Your task to perform on an android device: turn pop-ups off in chrome Image 0: 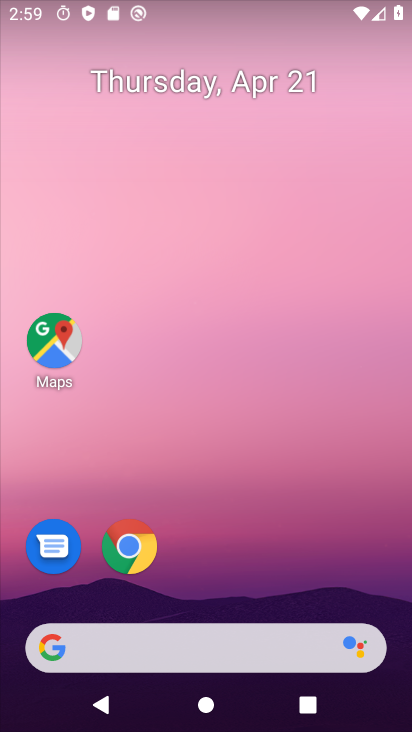
Step 0: drag from (283, 692) to (353, 304)
Your task to perform on an android device: turn pop-ups off in chrome Image 1: 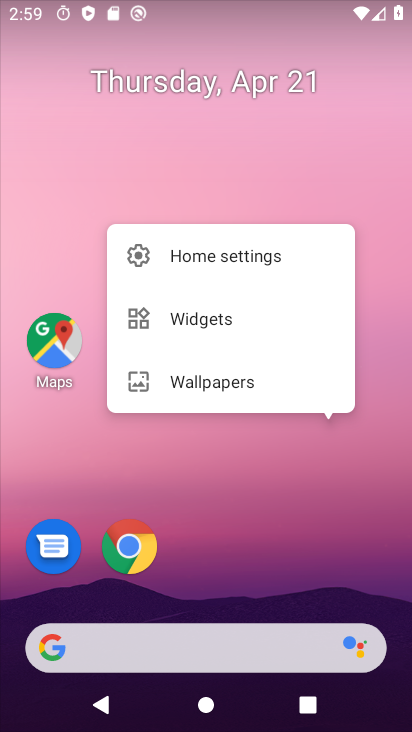
Step 1: drag from (282, 567) to (319, 24)
Your task to perform on an android device: turn pop-ups off in chrome Image 2: 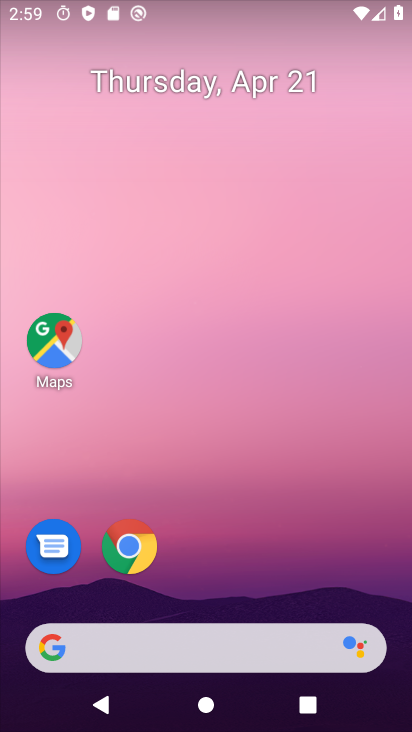
Step 2: drag from (277, 666) to (264, 7)
Your task to perform on an android device: turn pop-ups off in chrome Image 3: 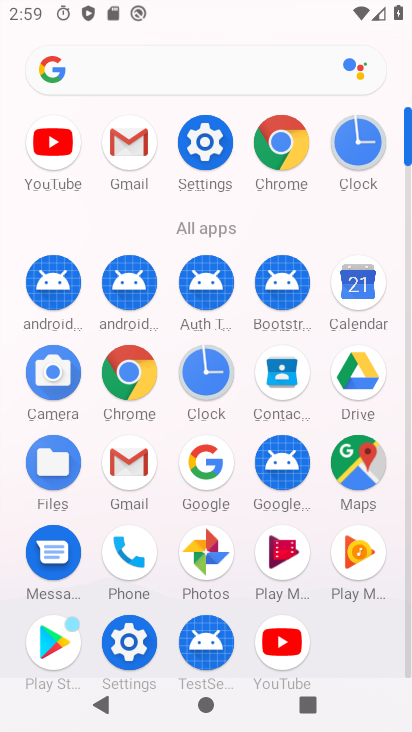
Step 3: click (122, 374)
Your task to perform on an android device: turn pop-ups off in chrome Image 4: 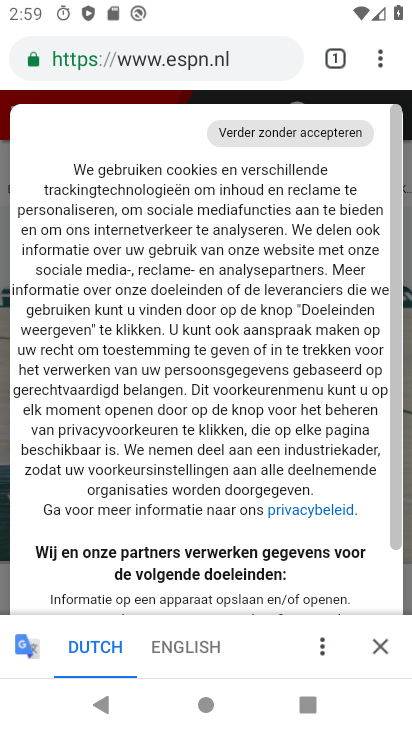
Step 4: click (378, 63)
Your task to perform on an android device: turn pop-ups off in chrome Image 5: 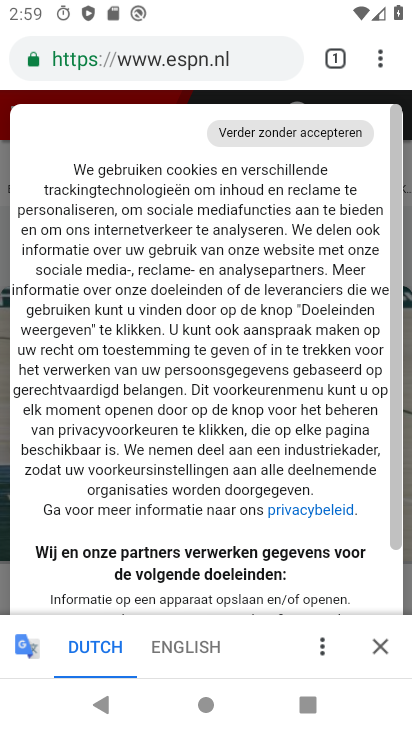
Step 5: drag from (381, 59) to (248, 585)
Your task to perform on an android device: turn pop-ups off in chrome Image 6: 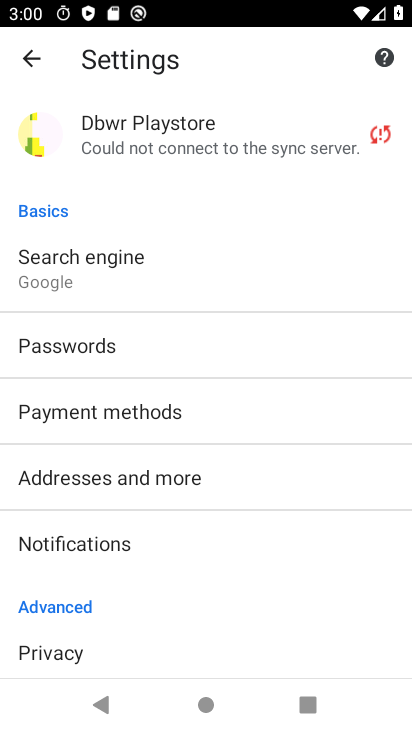
Step 6: drag from (161, 599) to (192, 307)
Your task to perform on an android device: turn pop-ups off in chrome Image 7: 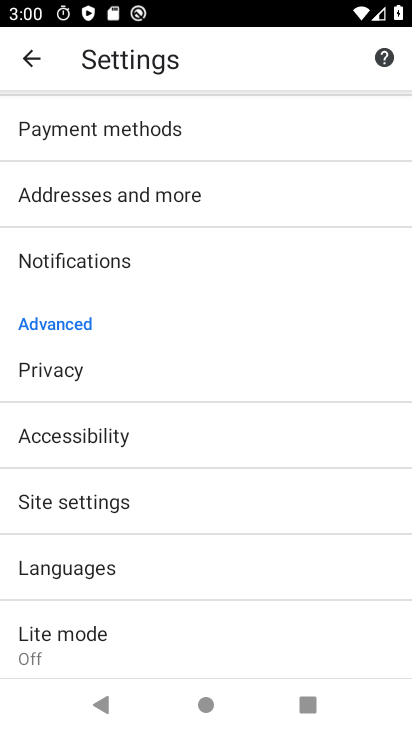
Step 7: click (177, 498)
Your task to perform on an android device: turn pop-ups off in chrome Image 8: 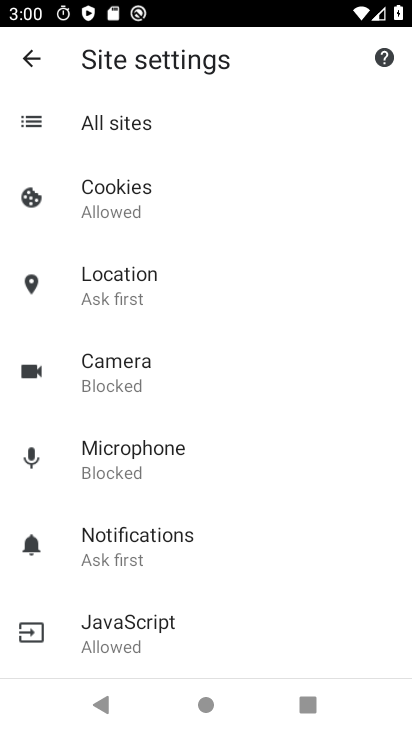
Step 8: drag from (248, 611) to (251, 412)
Your task to perform on an android device: turn pop-ups off in chrome Image 9: 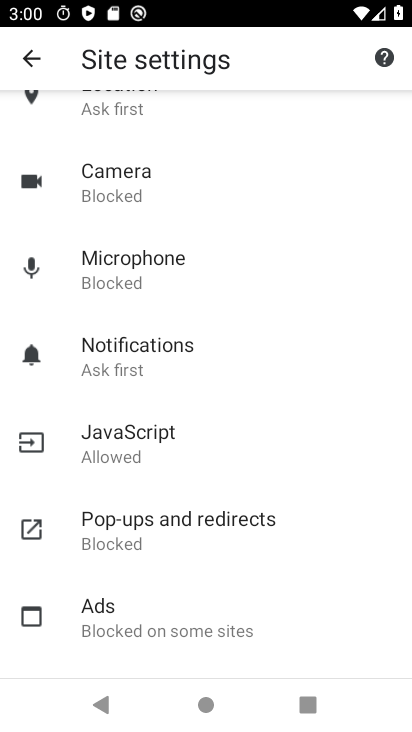
Step 9: drag from (281, 558) to (280, 386)
Your task to perform on an android device: turn pop-ups off in chrome Image 10: 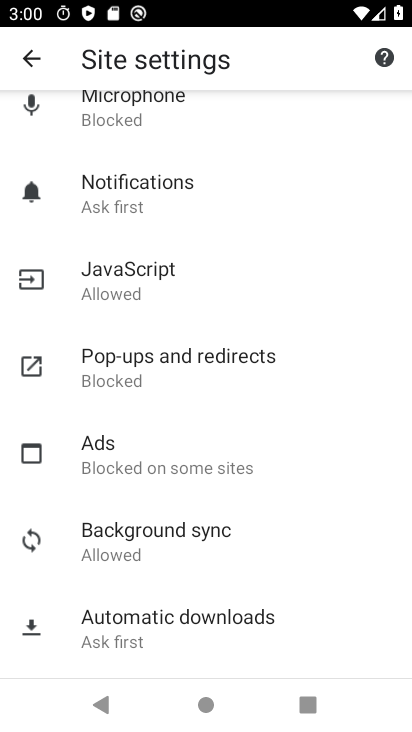
Step 10: drag from (250, 602) to (250, 388)
Your task to perform on an android device: turn pop-ups off in chrome Image 11: 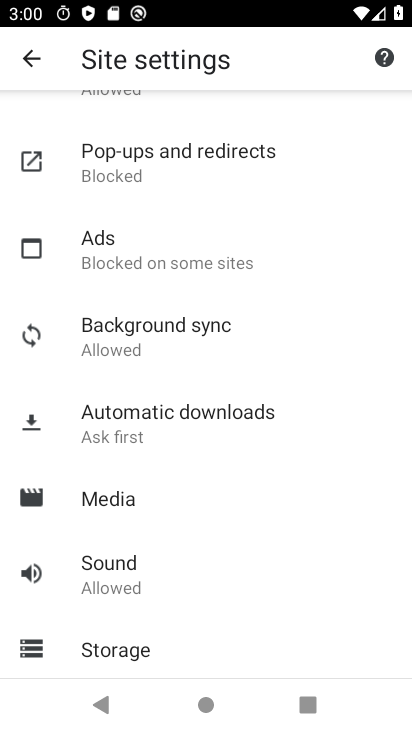
Step 11: drag from (188, 633) to (189, 464)
Your task to perform on an android device: turn pop-ups off in chrome Image 12: 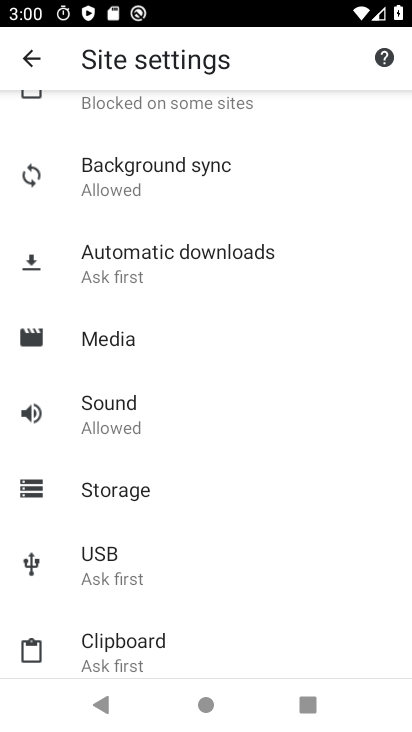
Step 12: drag from (204, 591) to (201, 409)
Your task to perform on an android device: turn pop-ups off in chrome Image 13: 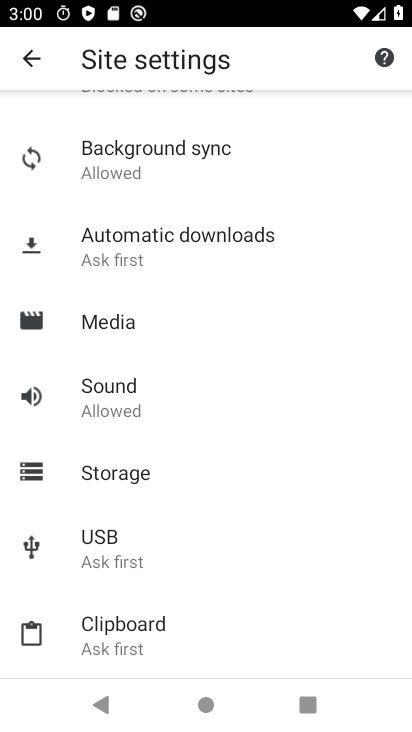
Step 13: drag from (269, 164) to (265, 547)
Your task to perform on an android device: turn pop-ups off in chrome Image 14: 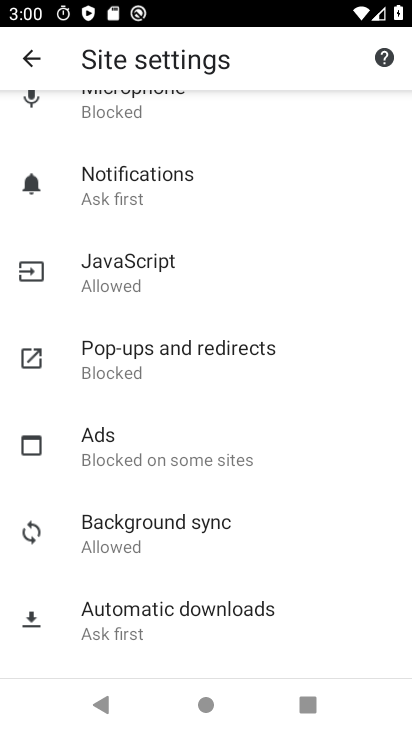
Step 14: click (186, 363)
Your task to perform on an android device: turn pop-ups off in chrome Image 15: 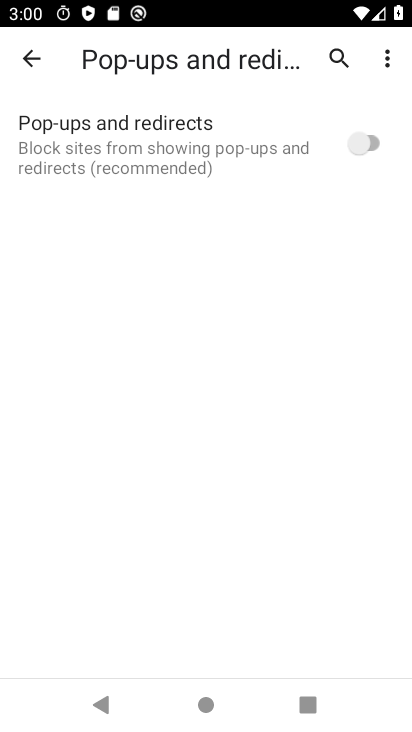
Step 15: click (367, 138)
Your task to perform on an android device: turn pop-ups off in chrome Image 16: 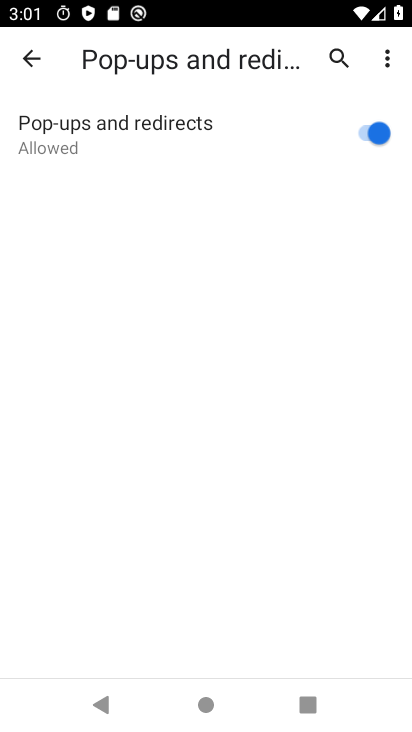
Step 16: task complete